Your task to perform on an android device: allow cookies in the chrome app Image 0: 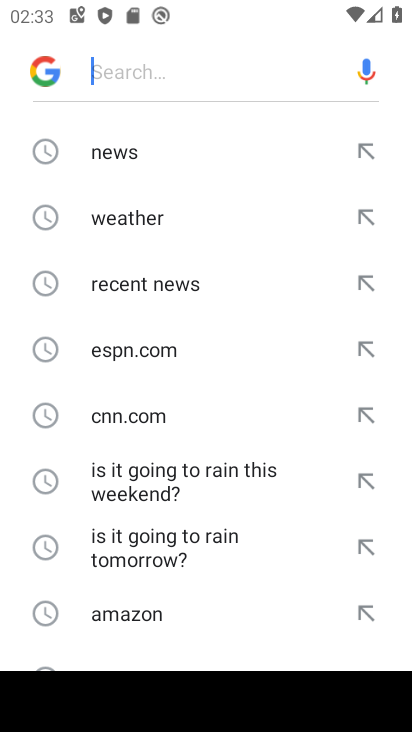
Step 0: press home button
Your task to perform on an android device: allow cookies in the chrome app Image 1: 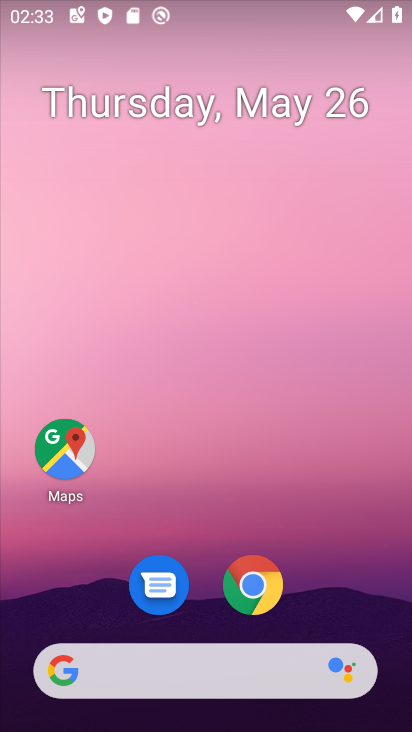
Step 1: click (266, 572)
Your task to perform on an android device: allow cookies in the chrome app Image 2: 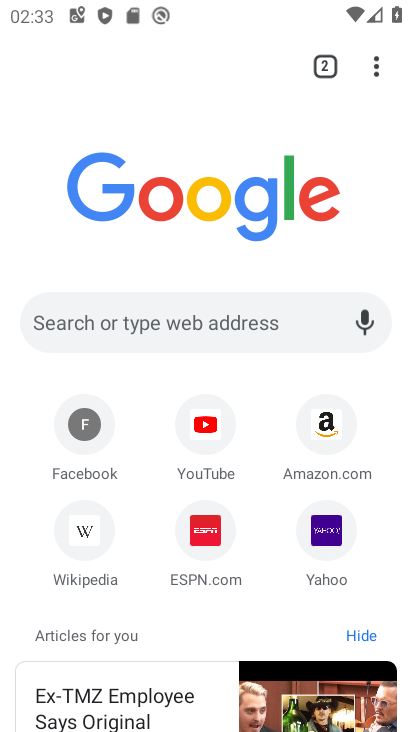
Step 2: click (377, 69)
Your task to perform on an android device: allow cookies in the chrome app Image 3: 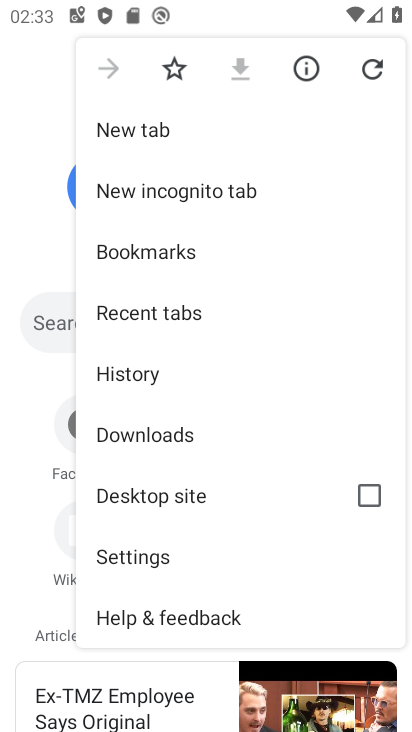
Step 3: click (187, 559)
Your task to perform on an android device: allow cookies in the chrome app Image 4: 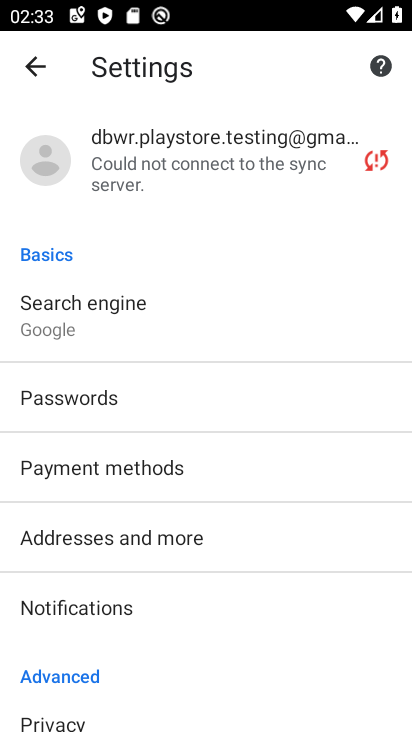
Step 4: drag from (244, 618) to (238, 373)
Your task to perform on an android device: allow cookies in the chrome app Image 5: 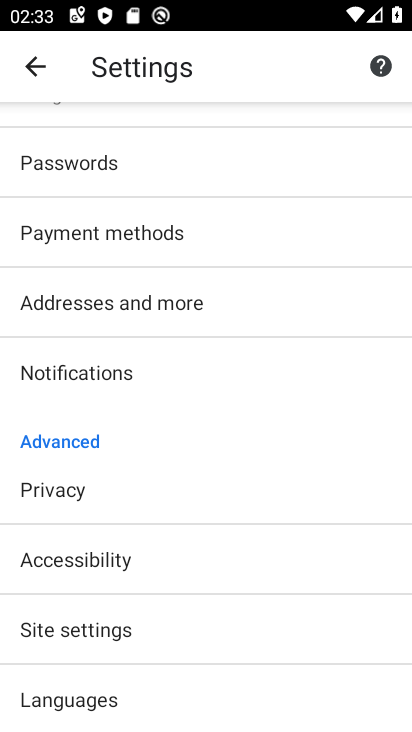
Step 5: click (209, 624)
Your task to perform on an android device: allow cookies in the chrome app Image 6: 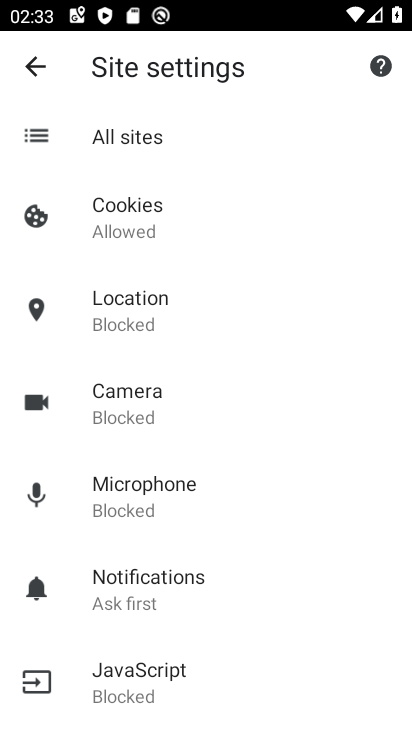
Step 6: click (201, 216)
Your task to perform on an android device: allow cookies in the chrome app Image 7: 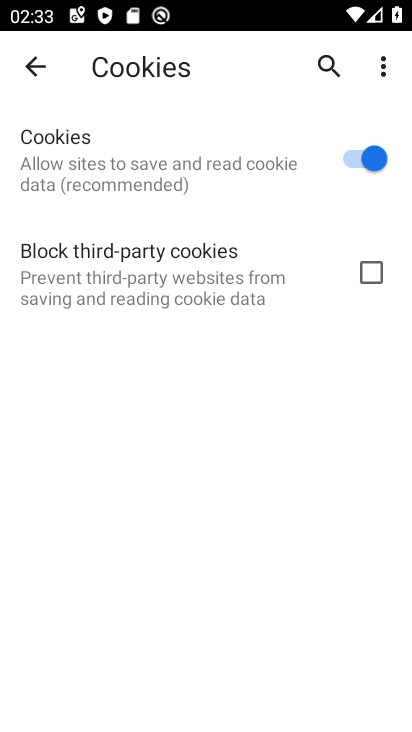
Step 7: task complete